Your task to perform on an android device: turn notification dots off Image 0: 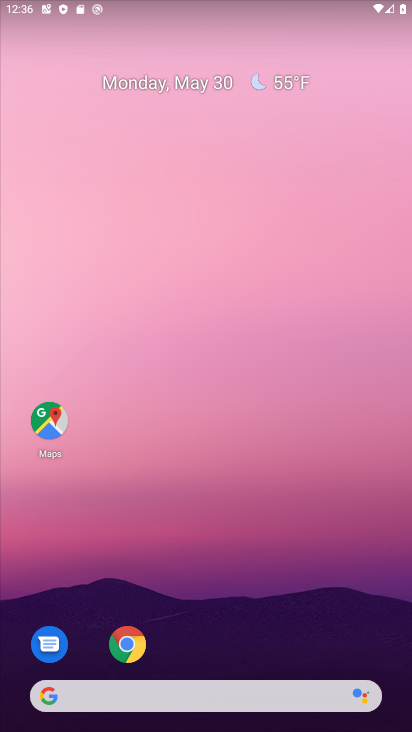
Step 0: drag from (293, 614) to (181, 12)
Your task to perform on an android device: turn notification dots off Image 1: 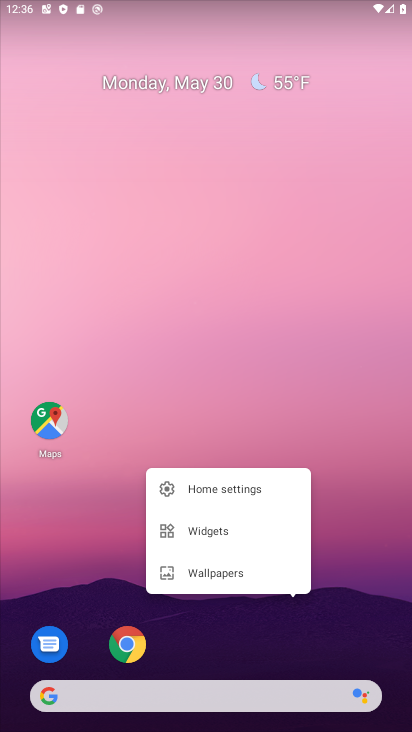
Step 1: click (100, 330)
Your task to perform on an android device: turn notification dots off Image 2: 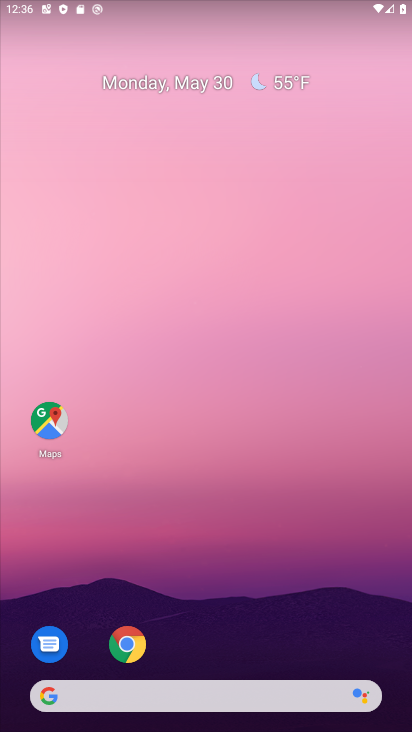
Step 2: drag from (320, 618) to (273, 17)
Your task to perform on an android device: turn notification dots off Image 3: 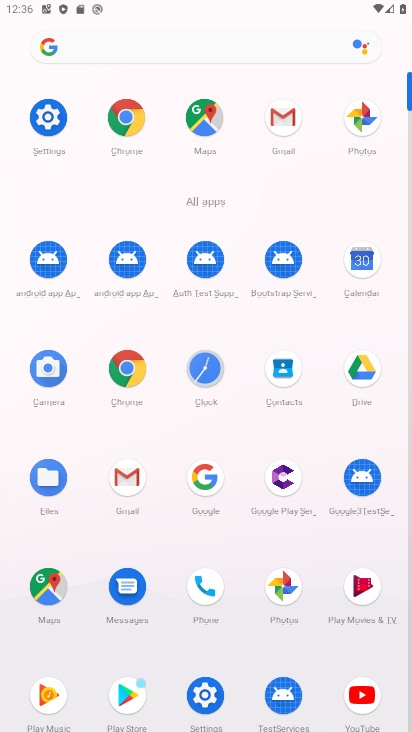
Step 3: click (54, 133)
Your task to perform on an android device: turn notification dots off Image 4: 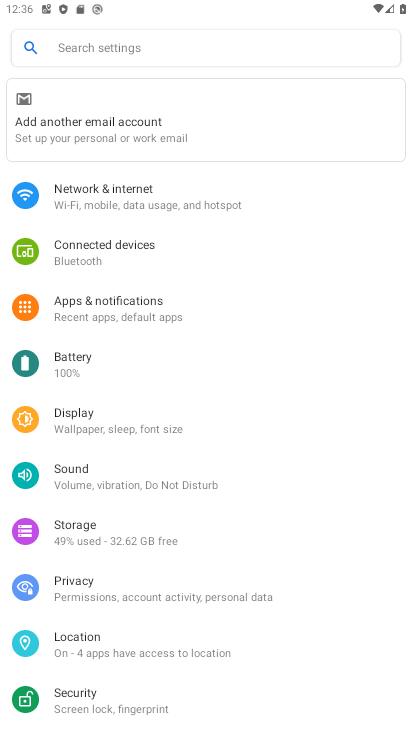
Step 4: click (148, 293)
Your task to perform on an android device: turn notification dots off Image 5: 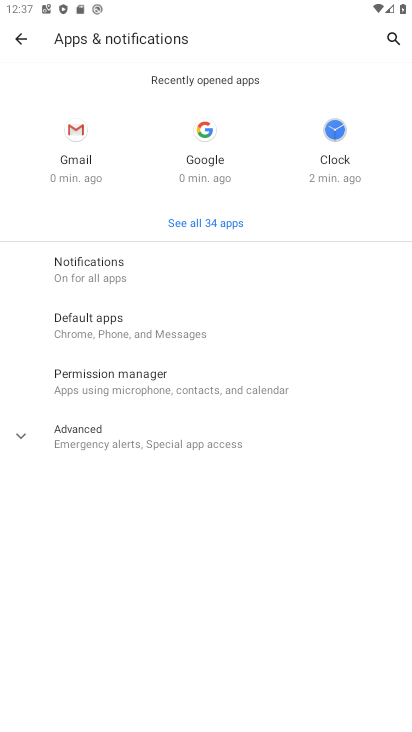
Step 5: task complete